Your task to perform on an android device: toggle priority inbox in the gmail app Image 0: 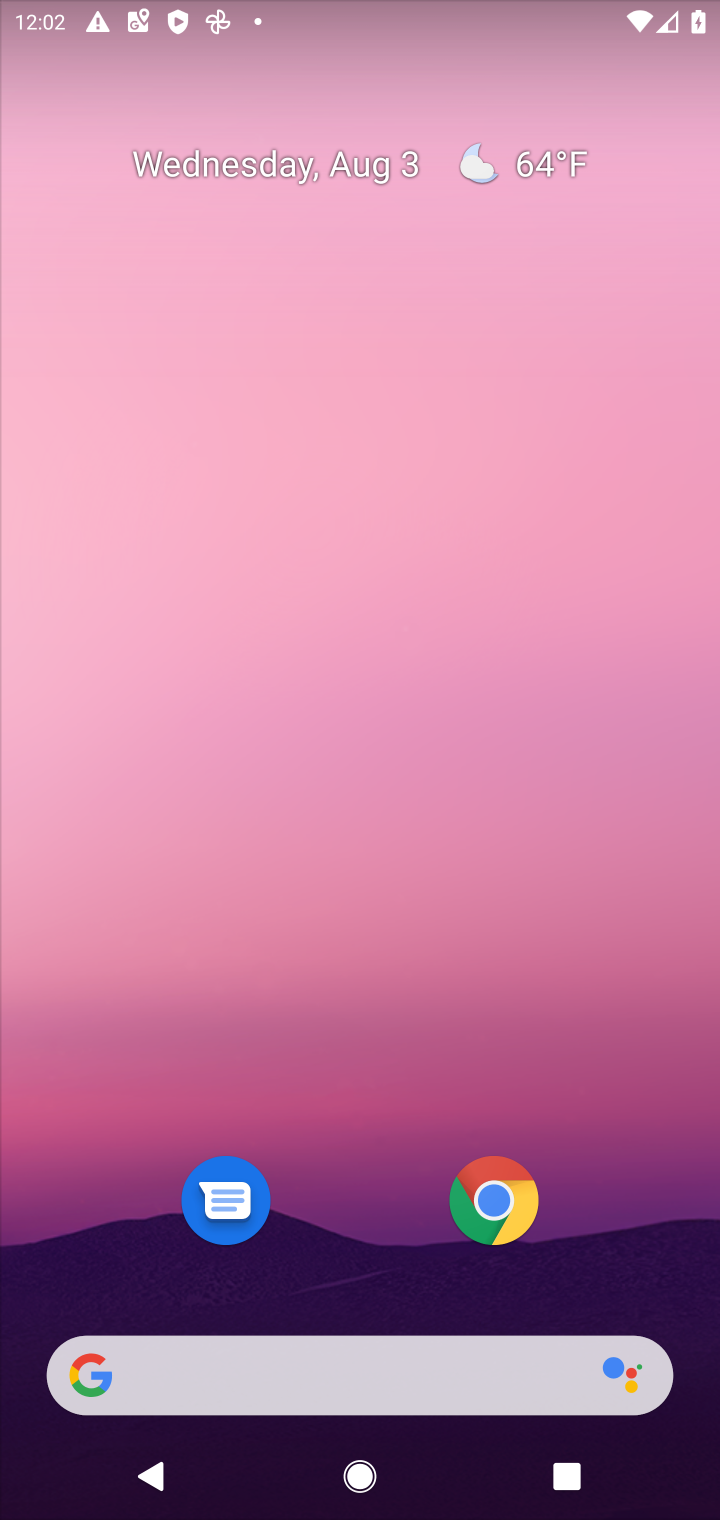
Step 0: press home button
Your task to perform on an android device: toggle priority inbox in the gmail app Image 1: 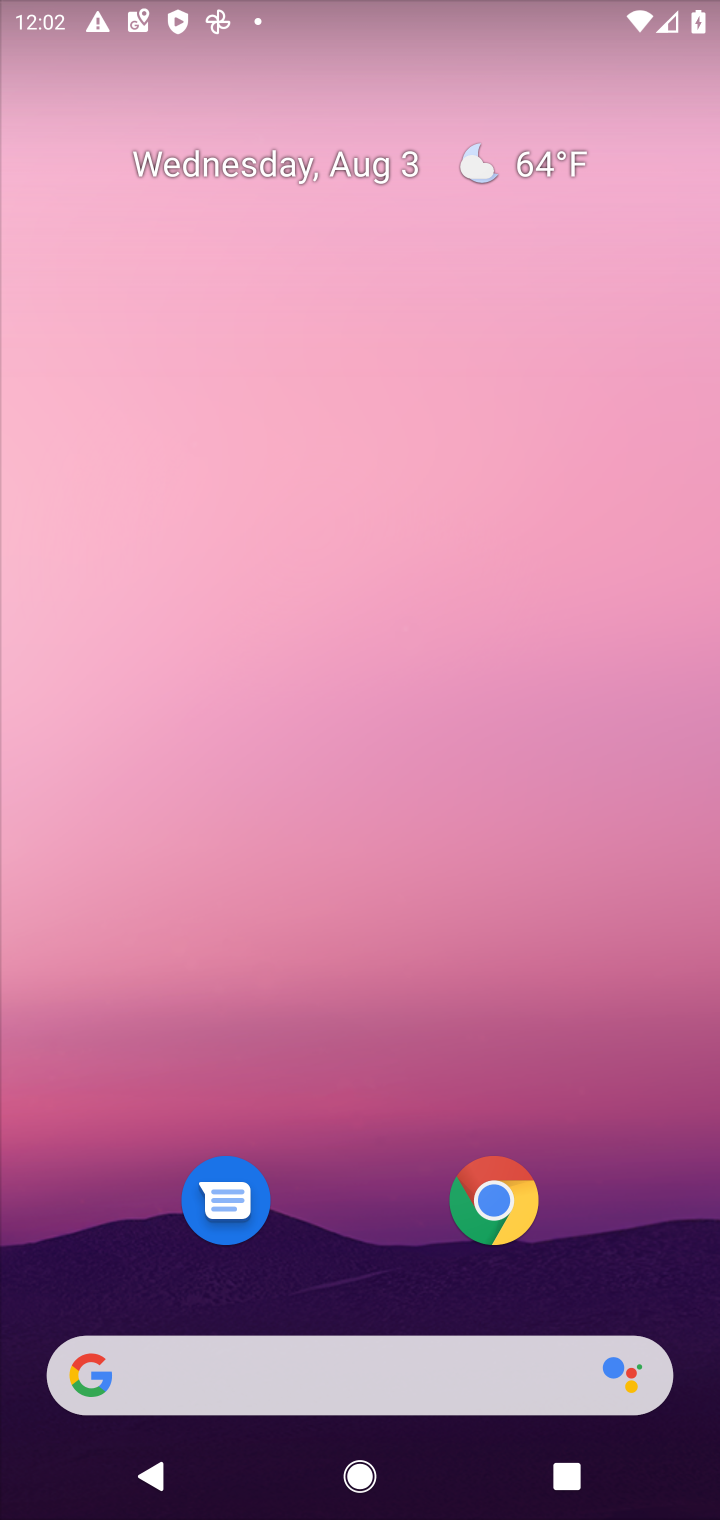
Step 1: drag from (672, 1292) to (581, 244)
Your task to perform on an android device: toggle priority inbox in the gmail app Image 2: 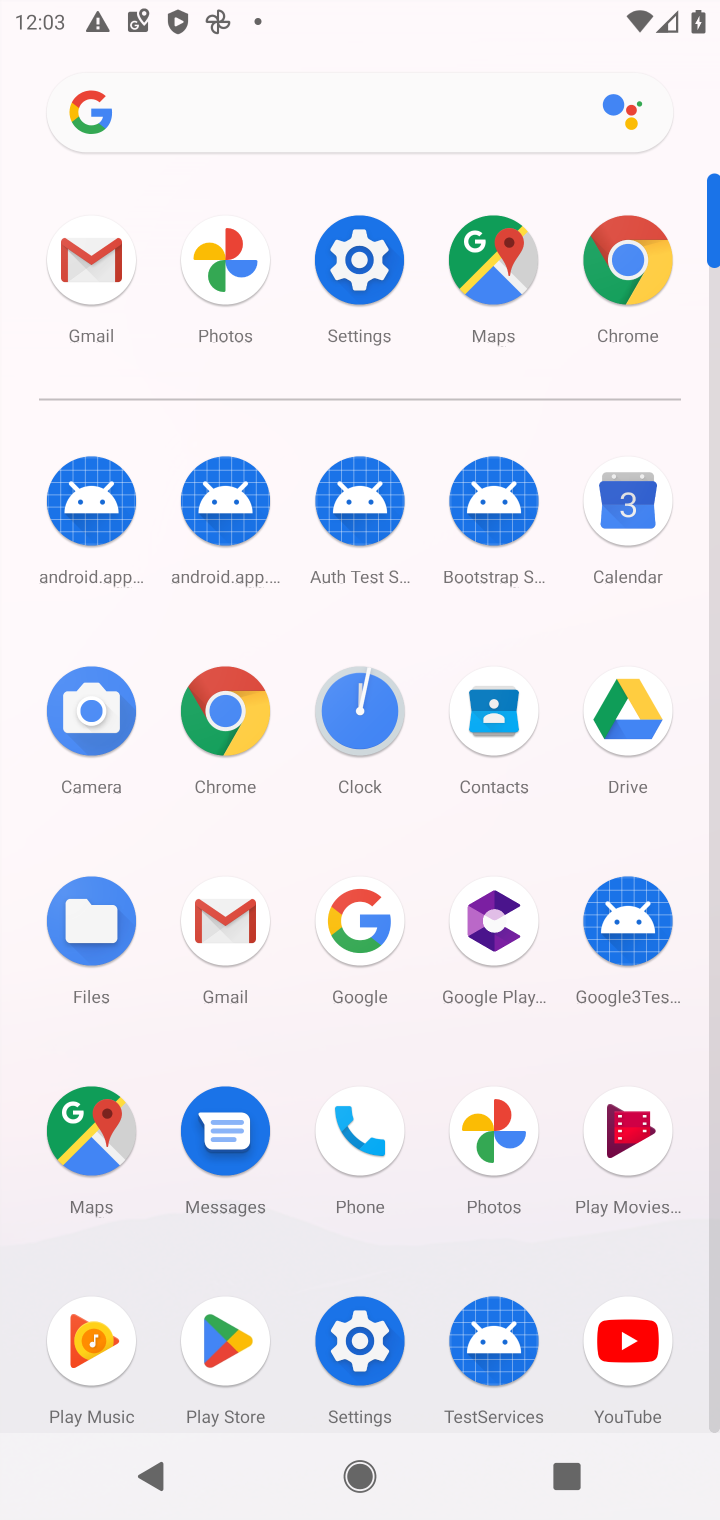
Step 2: click (233, 924)
Your task to perform on an android device: toggle priority inbox in the gmail app Image 3: 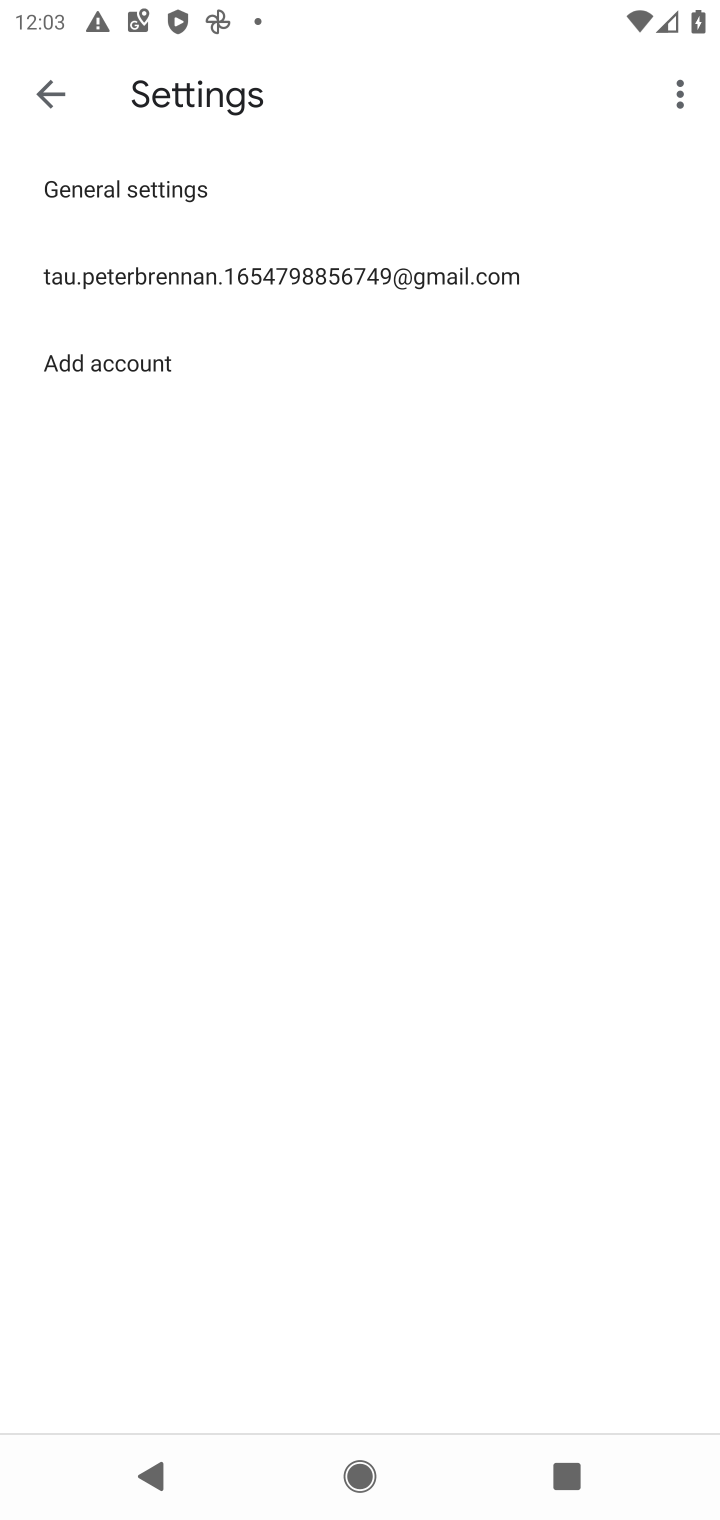
Step 3: click (217, 277)
Your task to perform on an android device: toggle priority inbox in the gmail app Image 4: 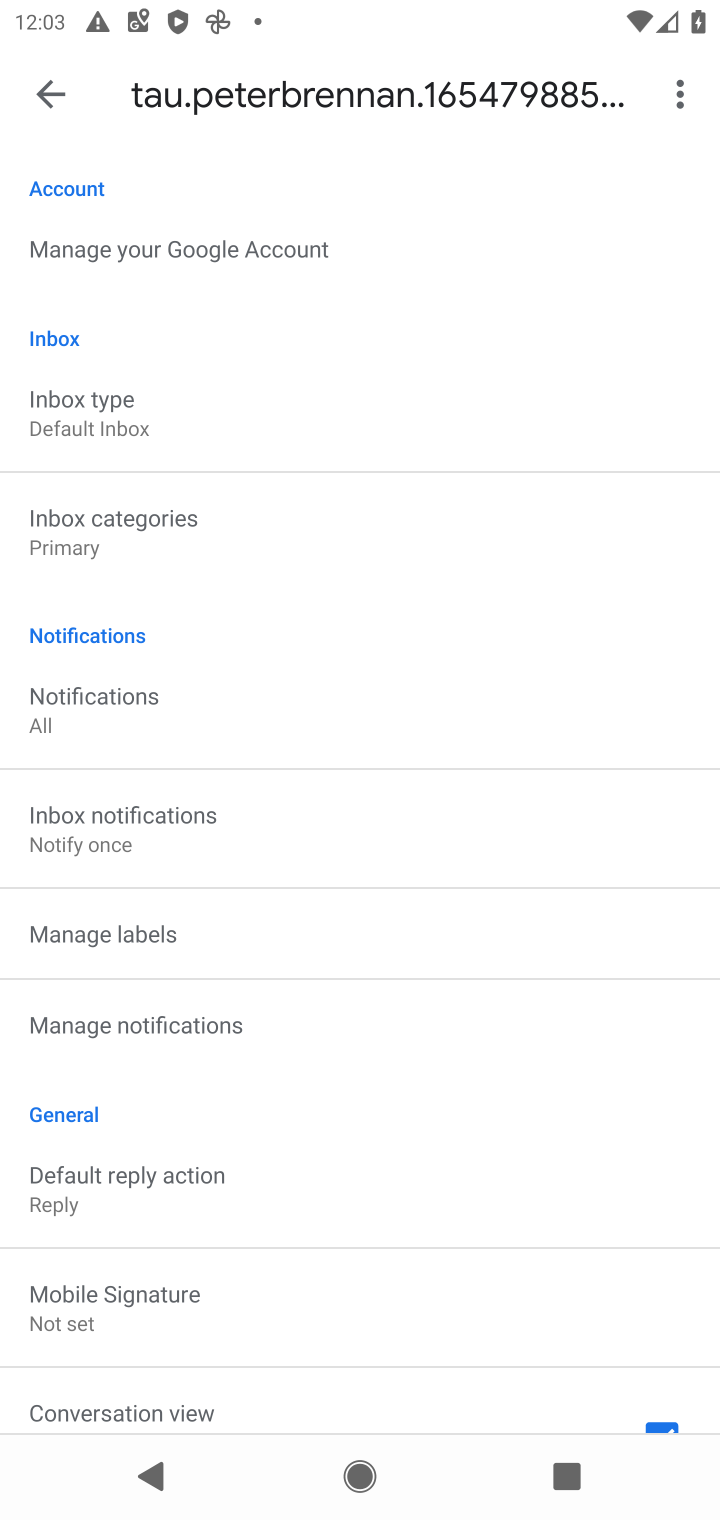
Step 4: click (90, 420)
Your task to perform on an android device: toggle priority inbox in the gmail app Image 5: 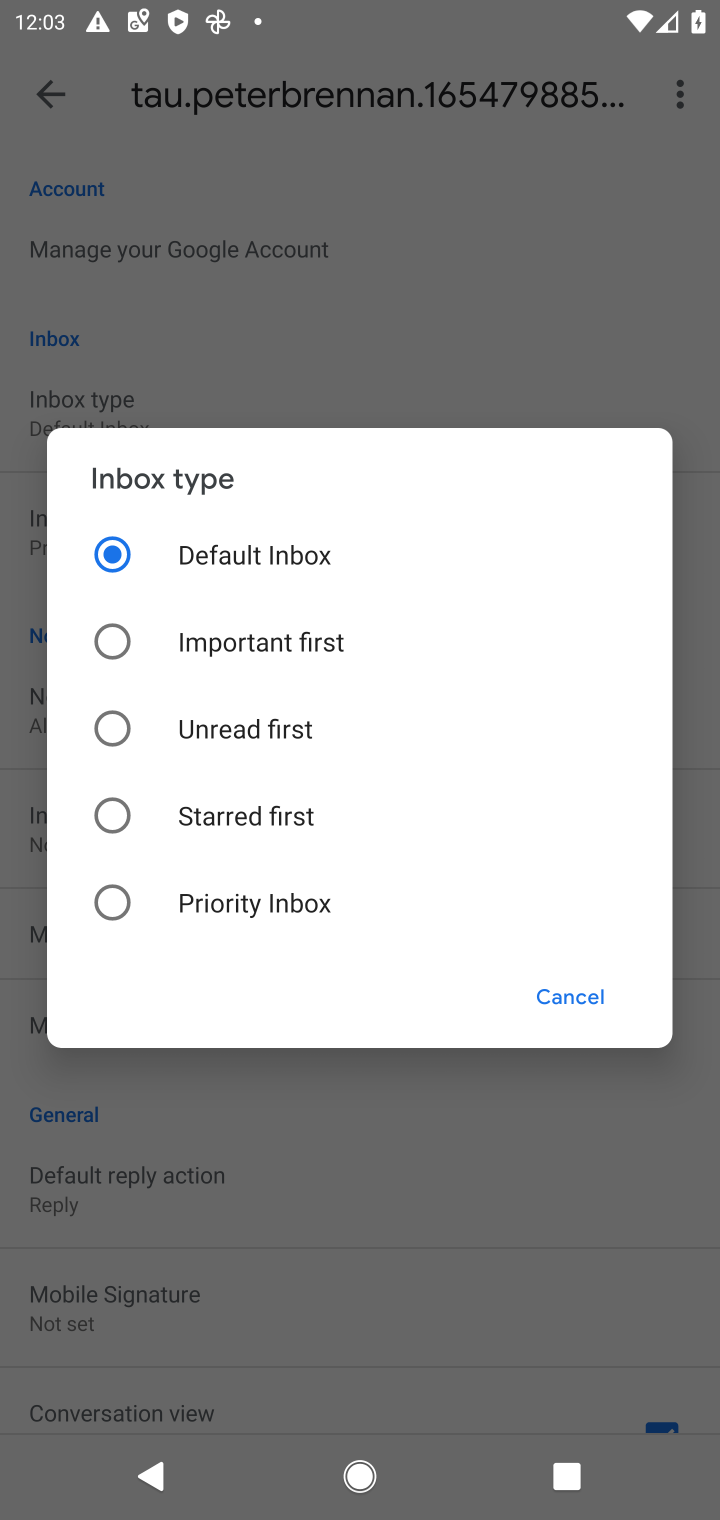
Step 5: click (115, 902)
Your task to perform on an android device: toggle priority inbox in the gmail app Image 6: 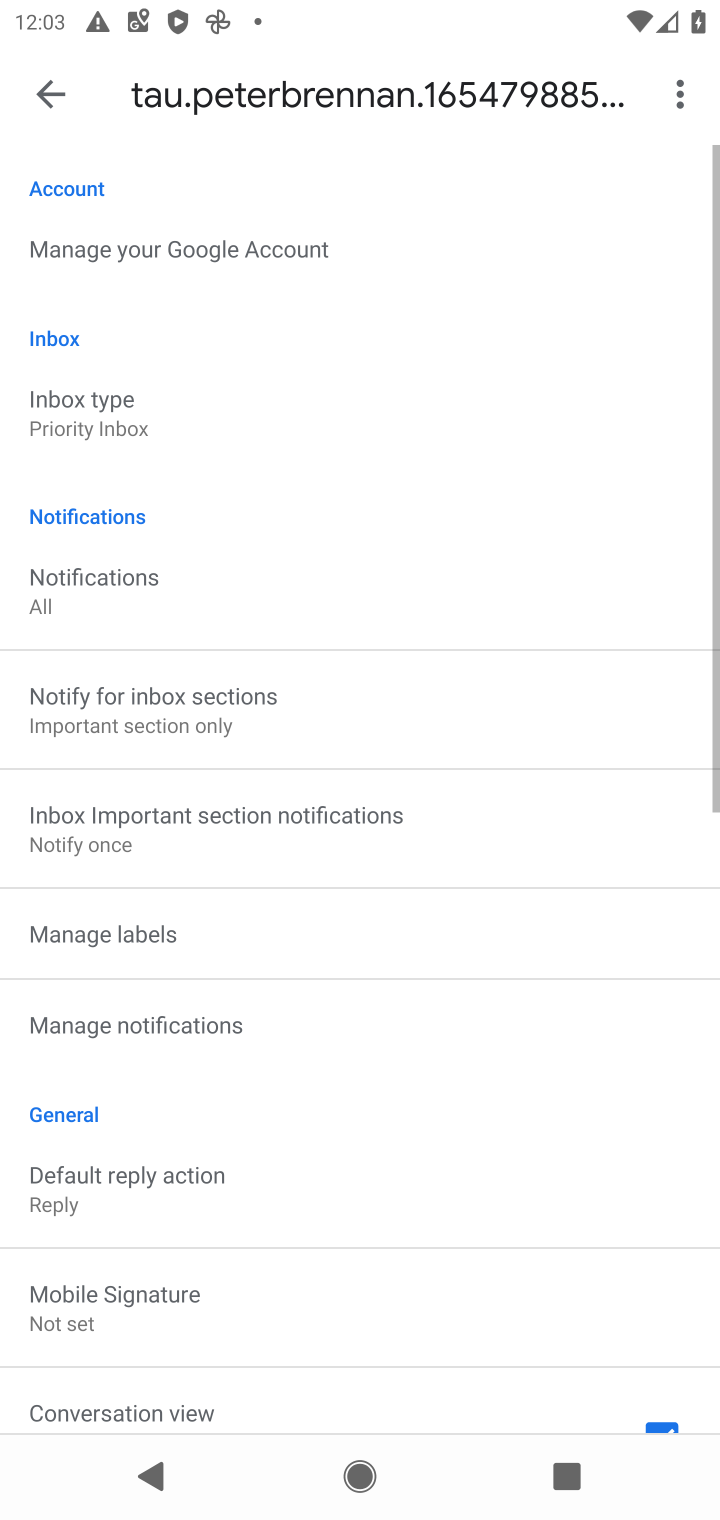
Step 6: task complete